Your task to perform on an android device: visit the assistant section in the google photos Image 0: 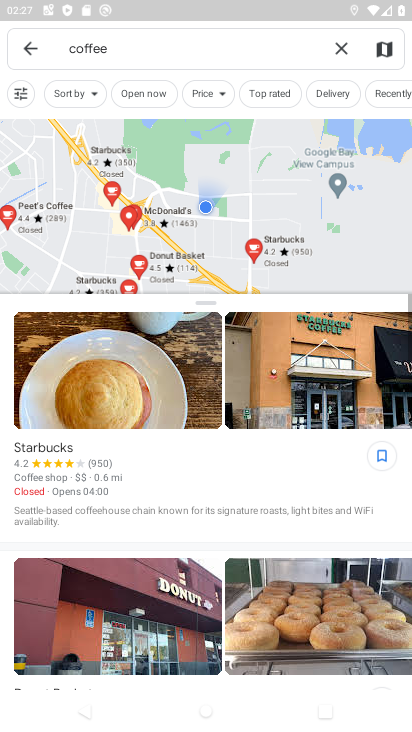
Step 0: press home button
Your task to perform on an android device: visit the assistant section in the google photos Image 1: 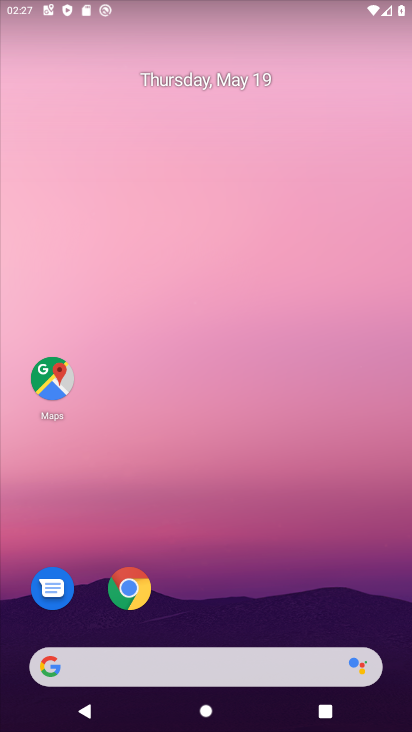
Step 1: drag from (217, 578) to (218, 133)
Your task to perform on an android device: visit the assistant section in the google photos Image 2: 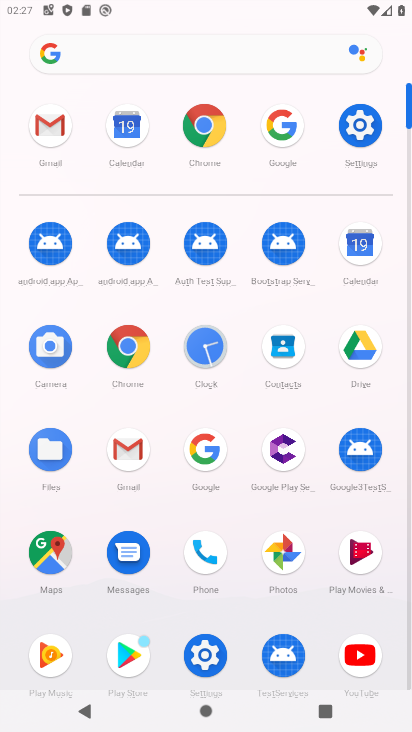
Step 2: click (287, 550)
Your task to perform on an android device: visit the assistant section in the google photos Image 3: 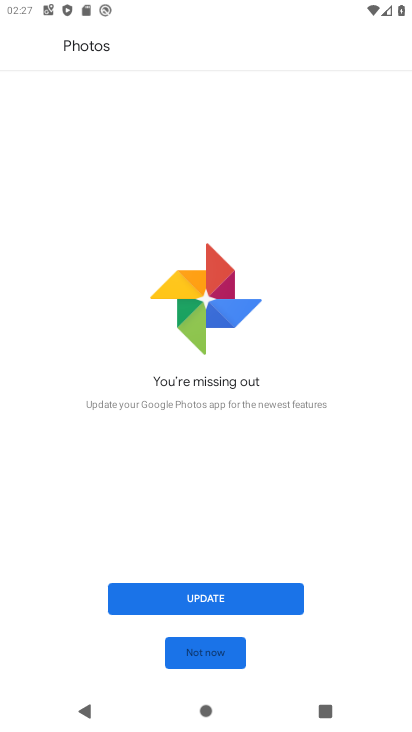
Step 3: click (214, 603)
Your task to perform on an android device: visit the assistant section in the google photos Image 4: 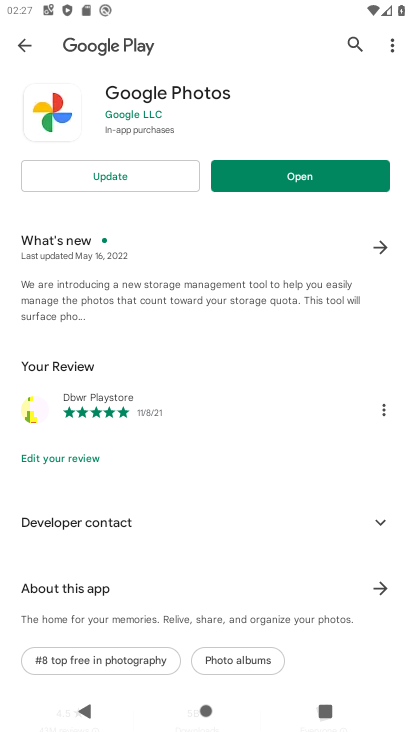
Step 4: click (143, 177)
Your task to perform on an android device: visit the assistant section in the google photos Image 5: 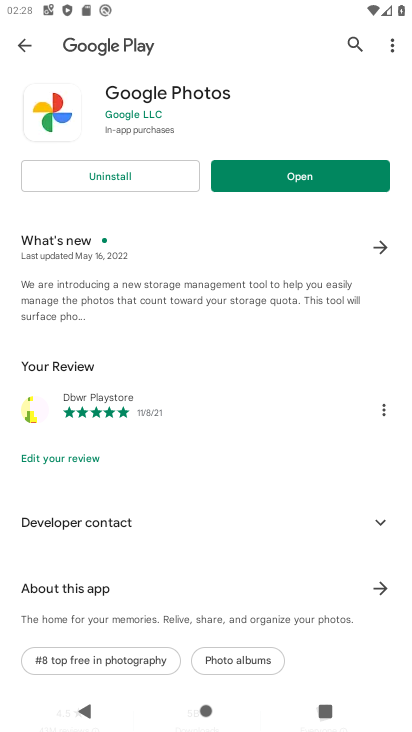
Step 5: click (313, 169)
Your task to perform on an android device: visit the assistant section in the google photos Image 6: 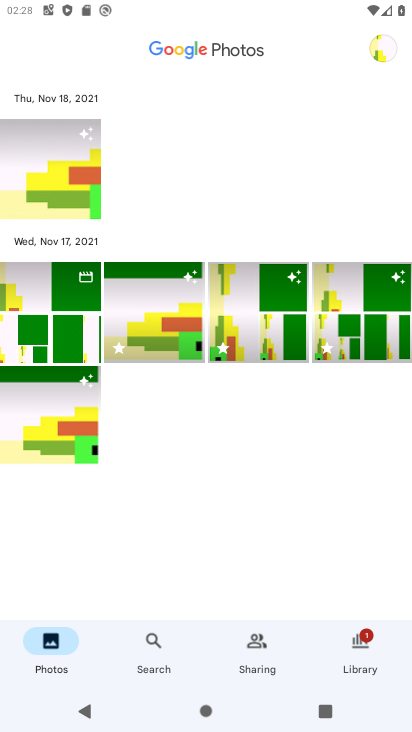
Step 6: click (357, 659)
Your task to perform on an android device: visit the assistant section in the google photos Image 7: 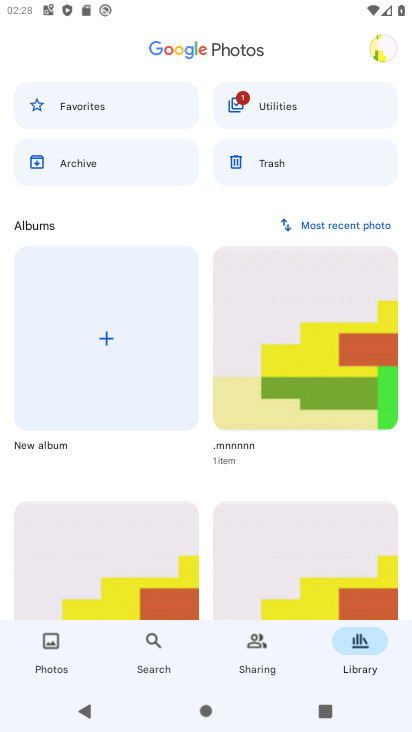
Step 7: task complete